Your task to perform on an android device: Play the last video I watched on Youtube Image 0: 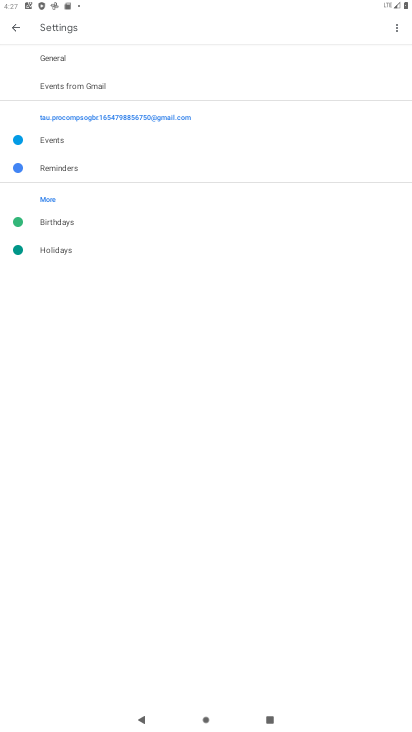
Step 0: press home button
Your task to perform on an android device: Play the last video I watched on Youtube Image 1: 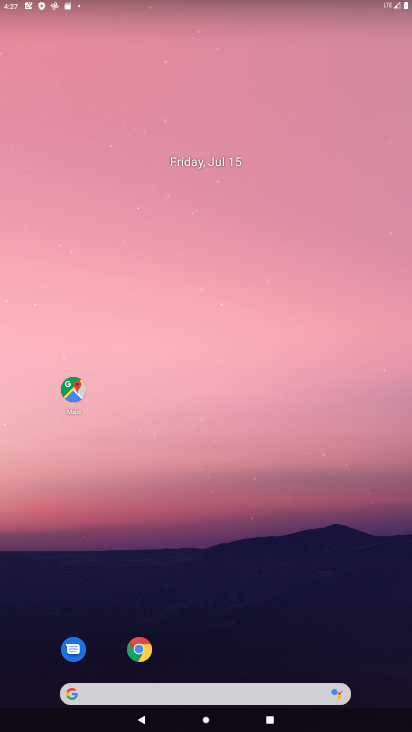
Step 1: drag from (290, 587) to (279, 177)
Your task to perform on an android device: Play the last video I watched on Youtube Image 2: 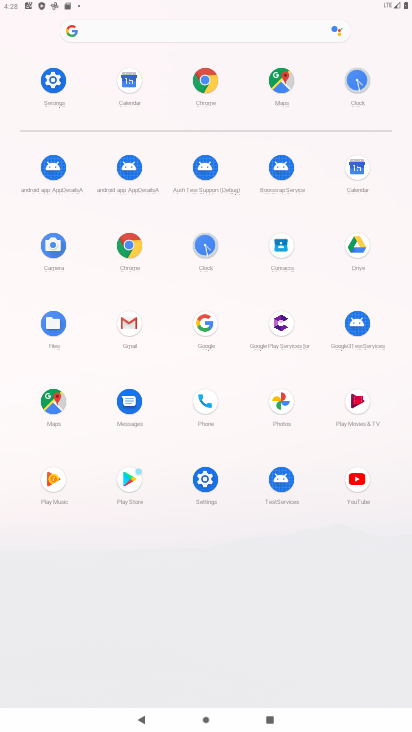
Step 2: click (362, 468)
Your task to perform on an android device: Play the last video I watched on Youtube Image 3: 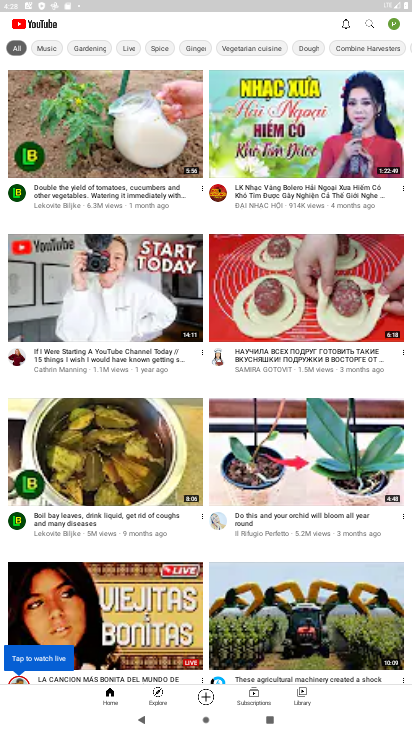
Step 3: click (295, 692)
Your task to perform on an android device: Play the last video I watched on Youtube Image 4: 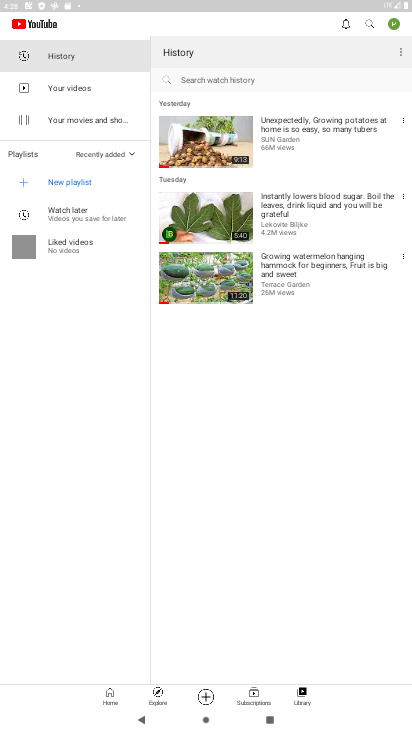
Step 4: click (228, 135)
Your task to perform on an android device: Play the last video I watched on Youtube Image 5: 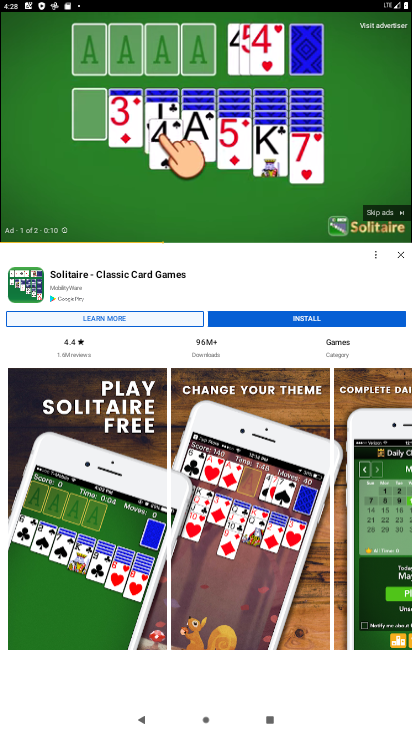
Step 5: task complete